Your task to perform on an android device: open device folders in google photos Image 0: 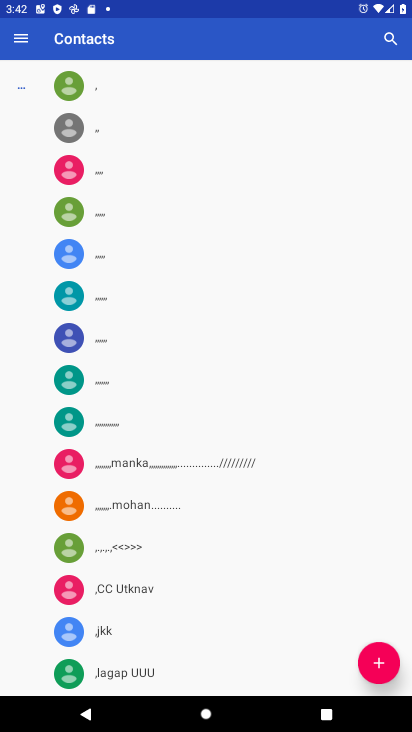
Step 0: press home button
Your task to perform on an android device: open device folders in google photos Image 1: 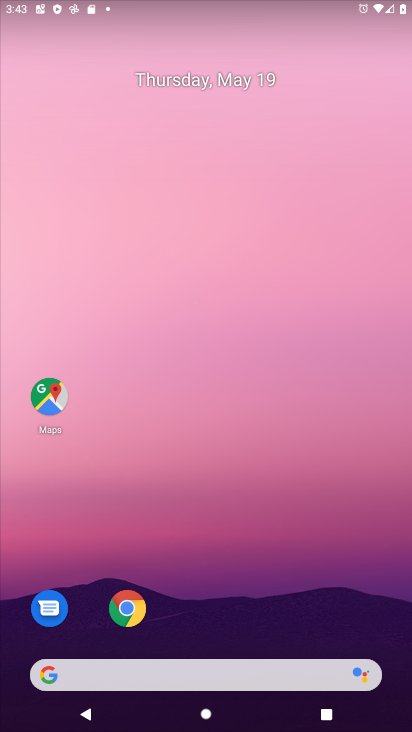
Step 1: drag from (315, 597) to (292, 269)
Your task to perform on an android device: open device folders in google photos Image 2: 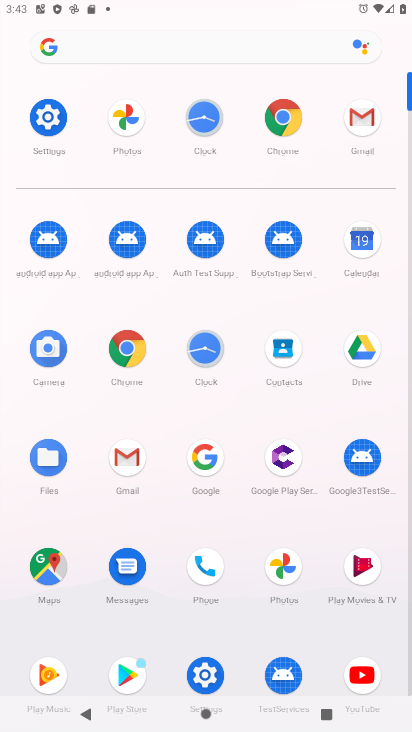
Step 2: click (278, 561)
Your task to perform on an android device: open device folders in google photos Image 3: 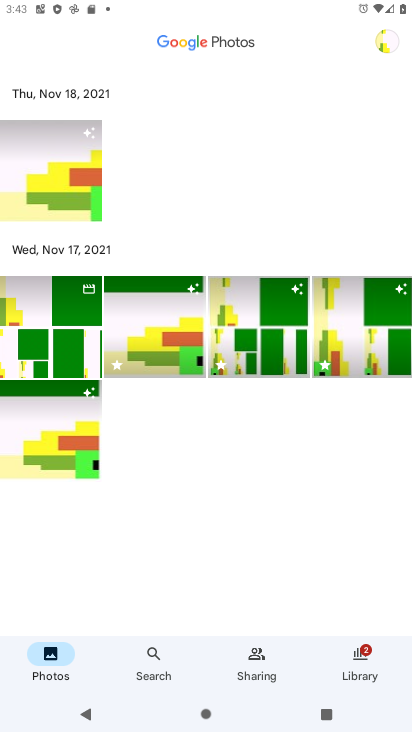
Step 3: task complete